Your task to perform on an android device: toggle sleep mode Image 0: 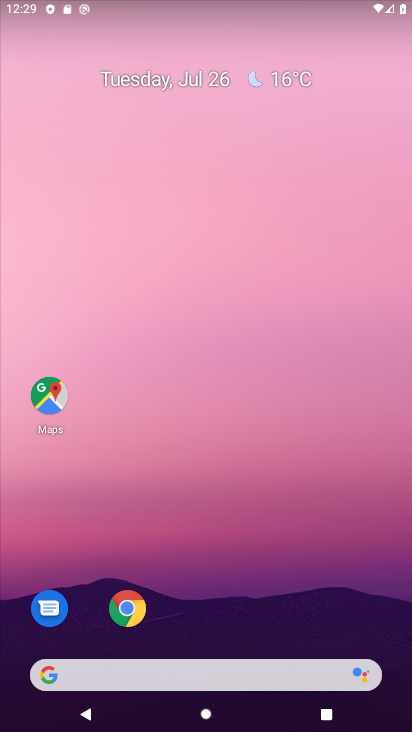
Step 0: drag from (178, 635) to (201, 68)
Your task to perform on an android device: toggle sleep mode Image 1: 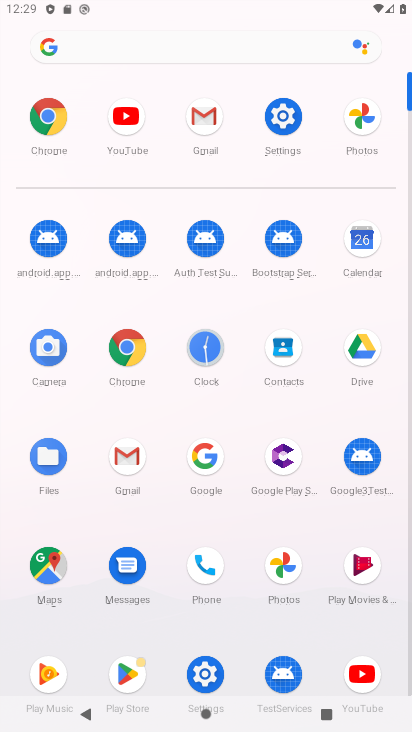
Step 1: click (280, 127)
Your task to perform on an android device: toggle sleep mode Image 2: 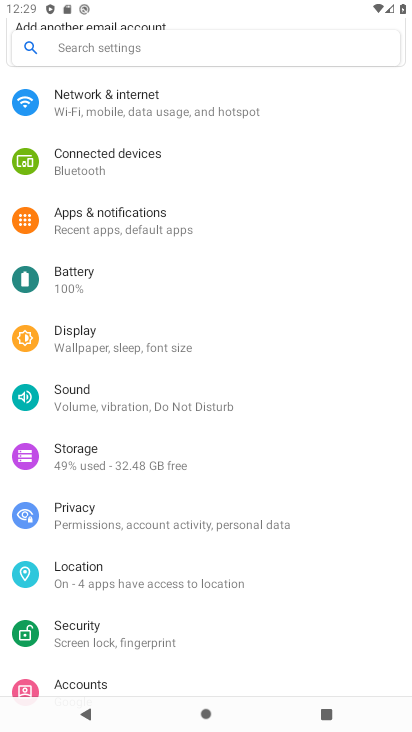
Step 2: task complete